Your task to perform on an android device: Open Yahoo.com Image 0: 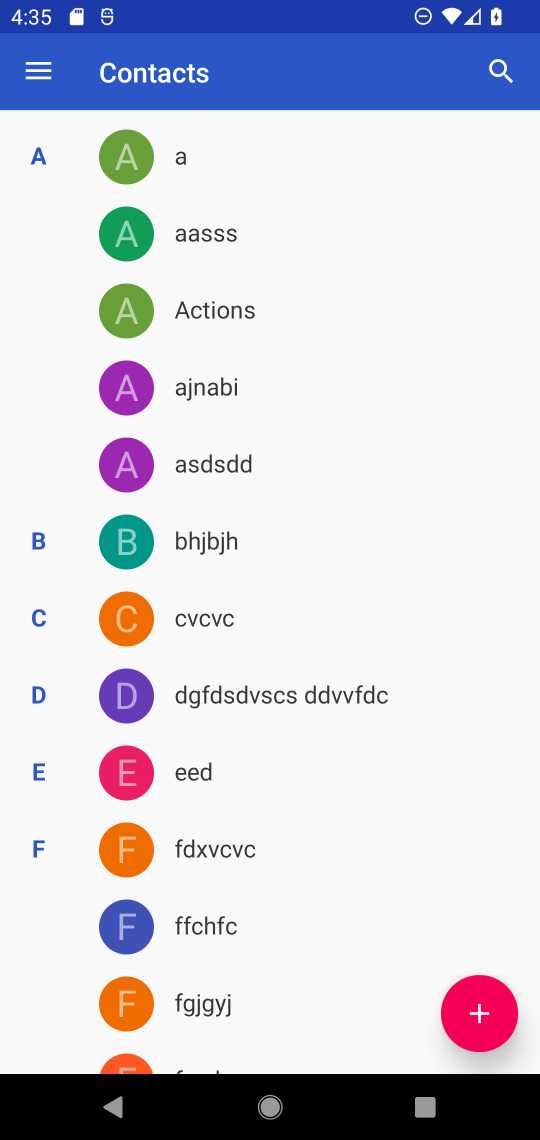
Step 0: press home button
Your task to perform on an android device: Open Yahoo.com Image 1: 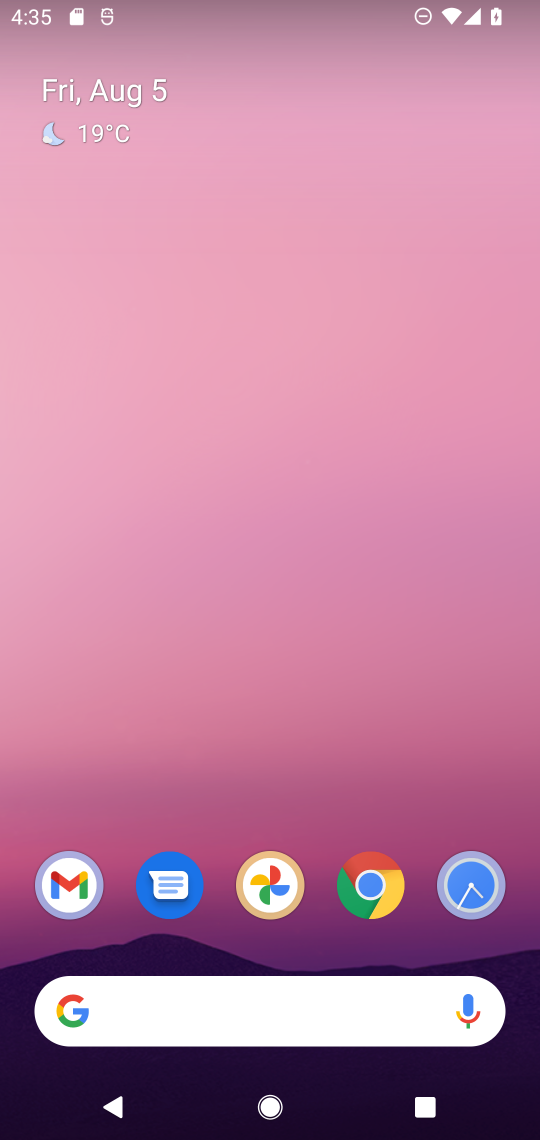
Step 1: drag from (323, 932) to (267, 39)
Your task to perform on an android device: Open Yahoo.com Image 2: 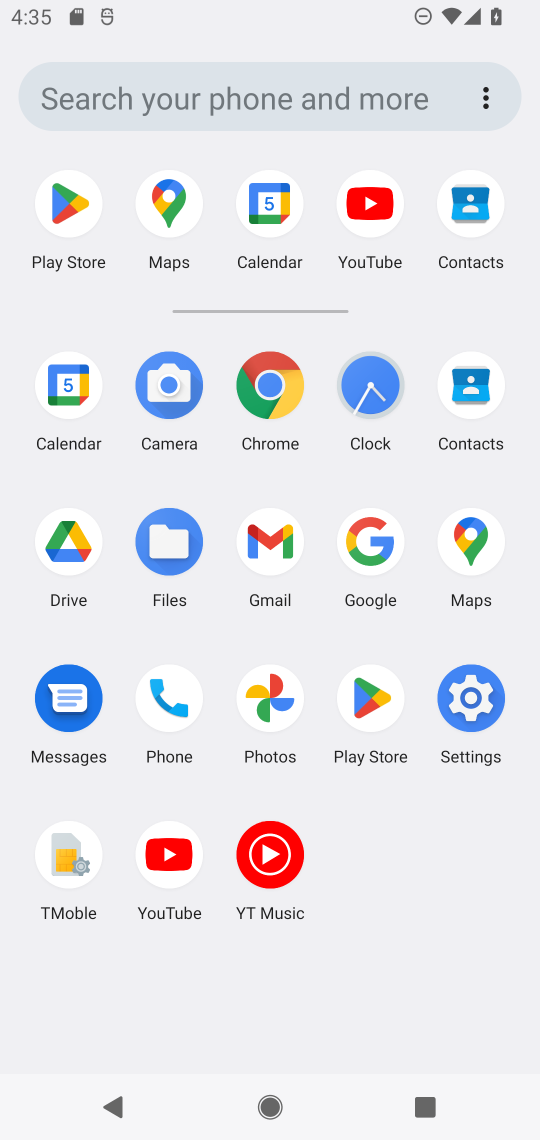
Step 2: click (275, 390)
Your task to perform on an android device: Open Yahoo.com Image 3: 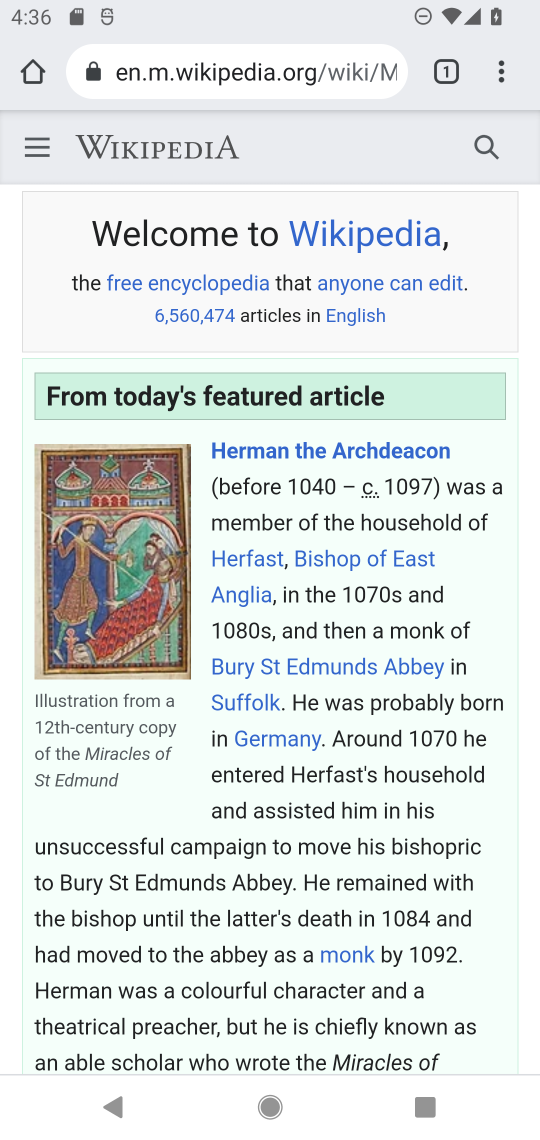
Step 3: click (499, 82)
Your task to perform on an android device: Open Yahoo.com Image 4: 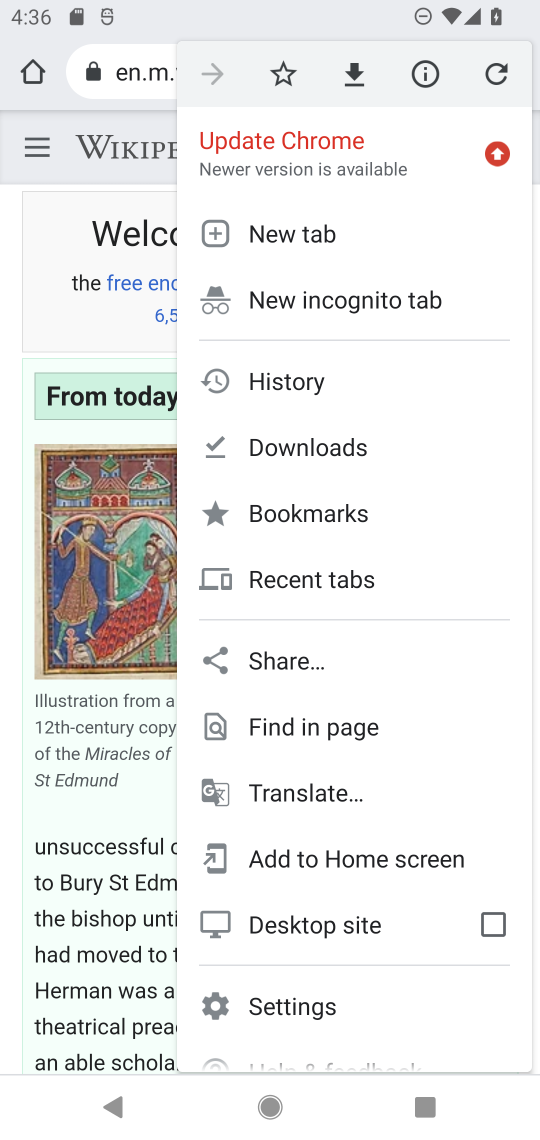
Step 4: click (287, 236)
Your task to perform on an android device: Open Yahoo.com Image 5: 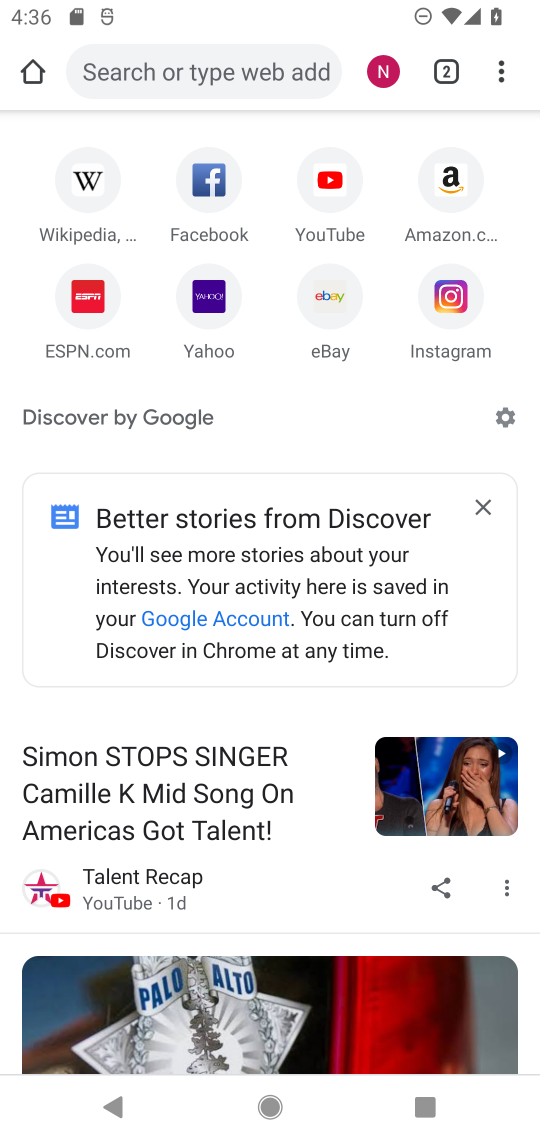
Step 5: click (211, 297)
Your task to perform on an android device: Open Yahoo.com Image 6: 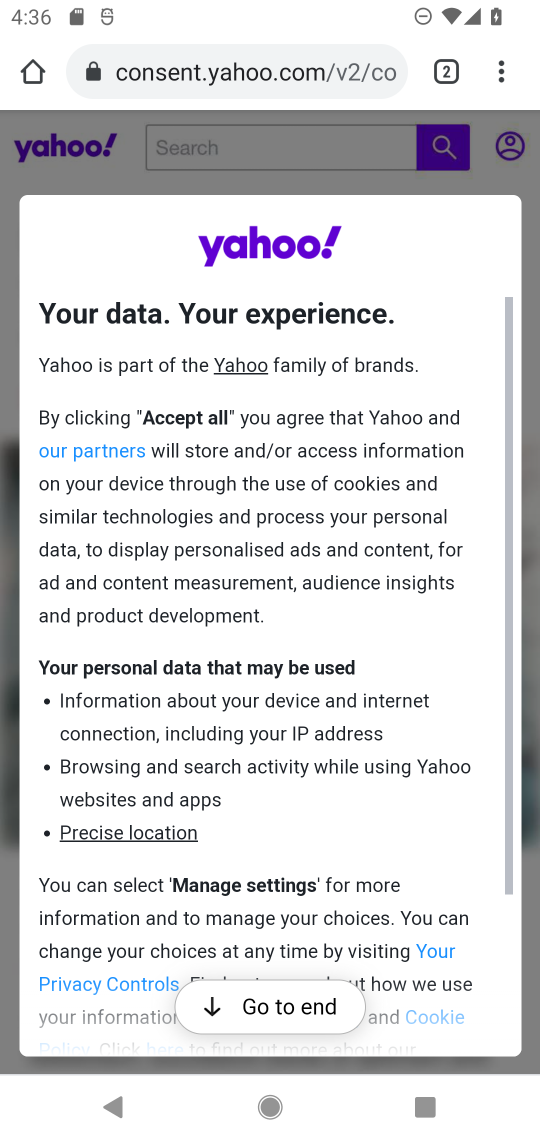
Step 6: drag from (297, 870) to (309, 459)
Your task to perform on an android device: Open Yahoo.com Image 7: 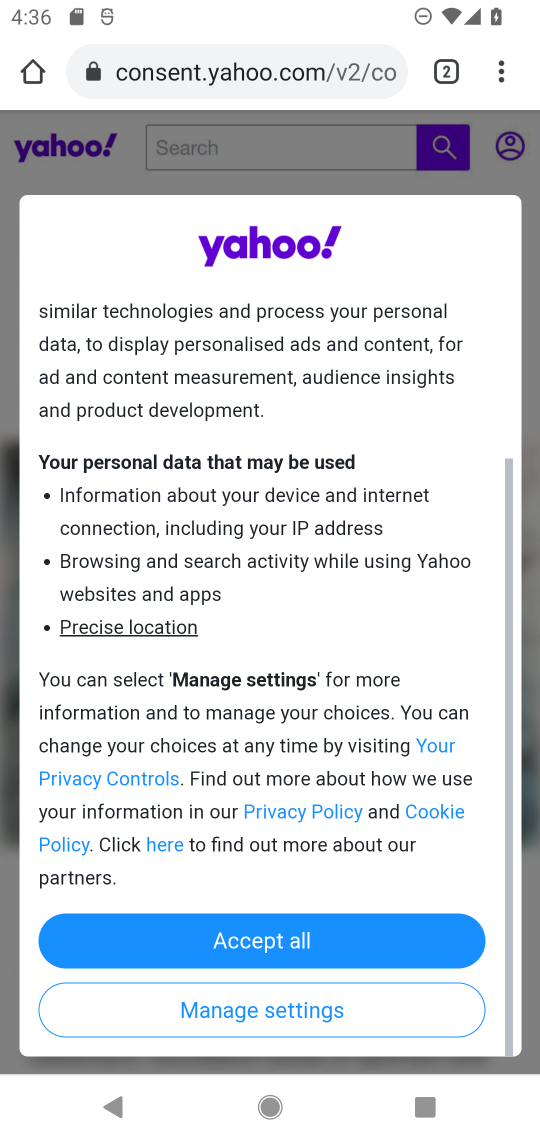
Step 7: click (306, 943)
Your task to perform on an android device: Open Yahoo.com Image 8: 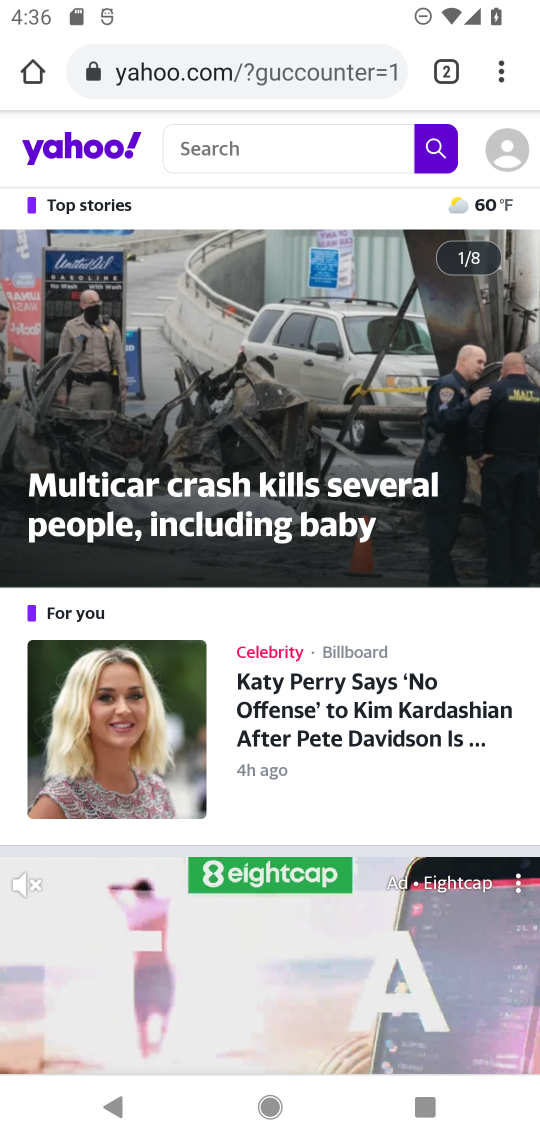
Step 8: task complete